Your task to perform on an android device: turn off location history Image 0: 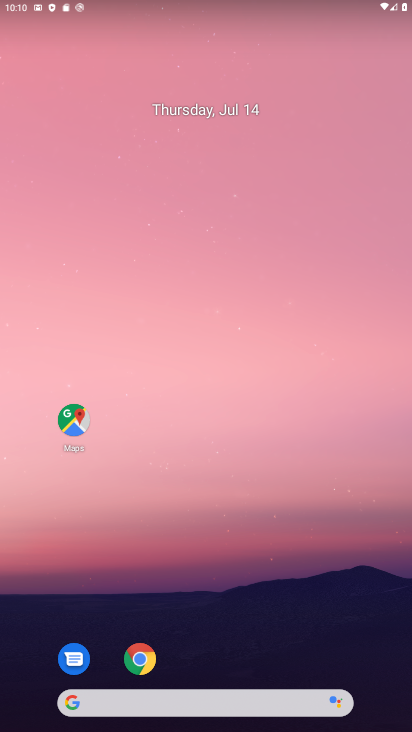
Step 0: drag from (166, 681) to (281, 74)
Your task to perform on an android device: turn off location history Image 1: 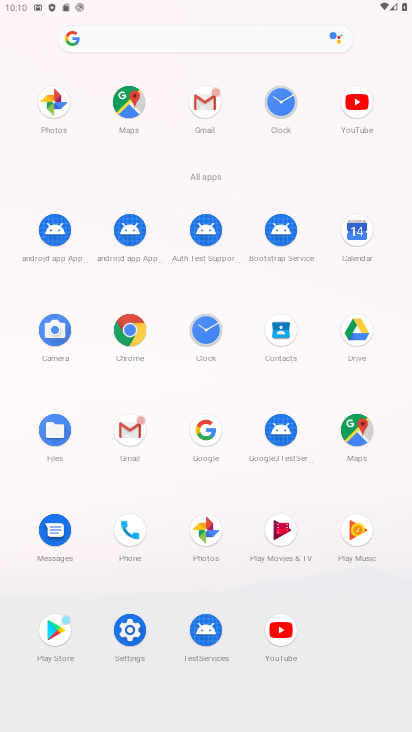
Step 1: click (140, 637)
Your task to perform on an android device: turn off location history Image 2: 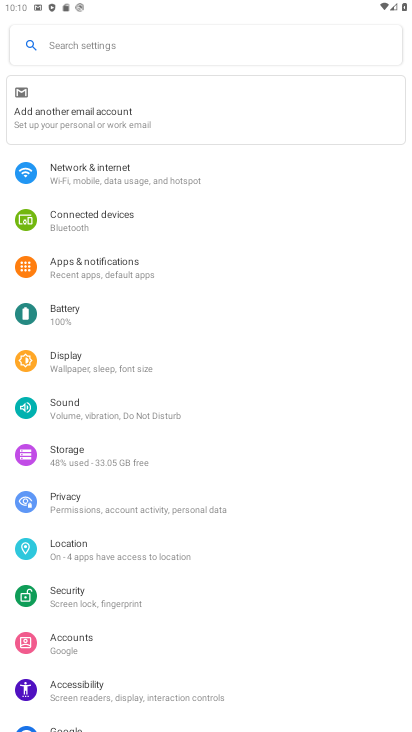
Step 2: click (119, 544)
Your task to perform on an android device: turn off location history Image 3: 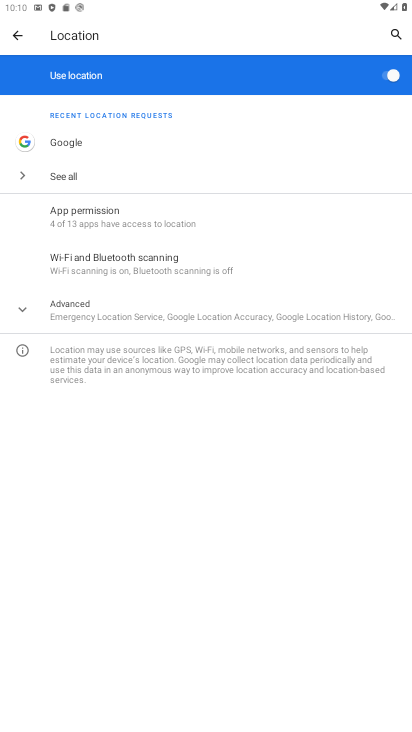
Step 3: click (107, 323)
Your task to perform on an android device: turn off location history Image 4: 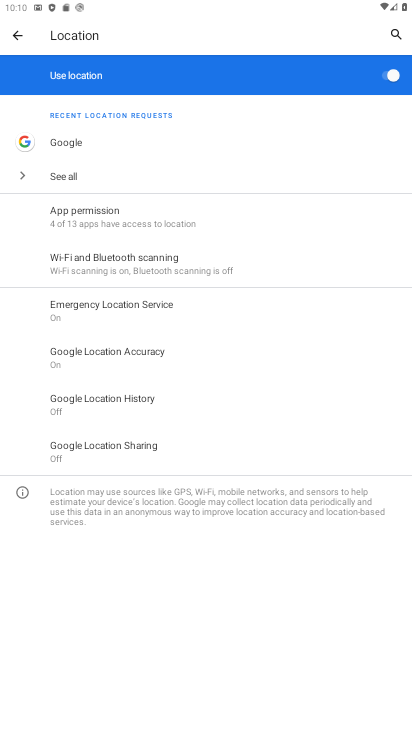
Step 4: click (141, 407)
Your task to perform on an android device: turn off location history Image 5: 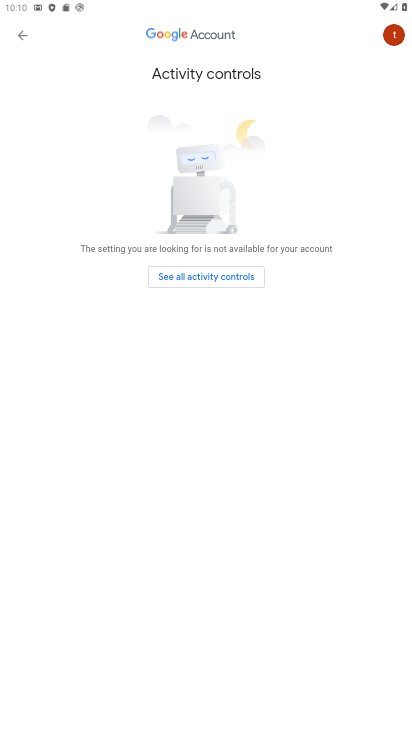
Step 5: task complete